Your task to perform on an android device: Look up the book "The Girl on the Train". Image 0: 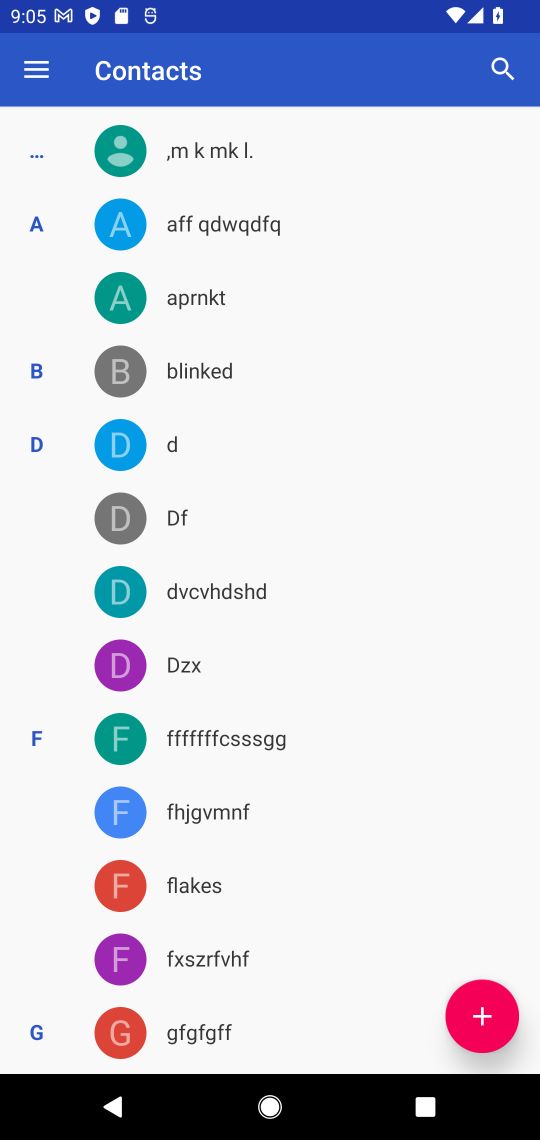
Step 0: press home button
Your task to perform on an android device: Look up the book "The Girl on the Train". Image 1: 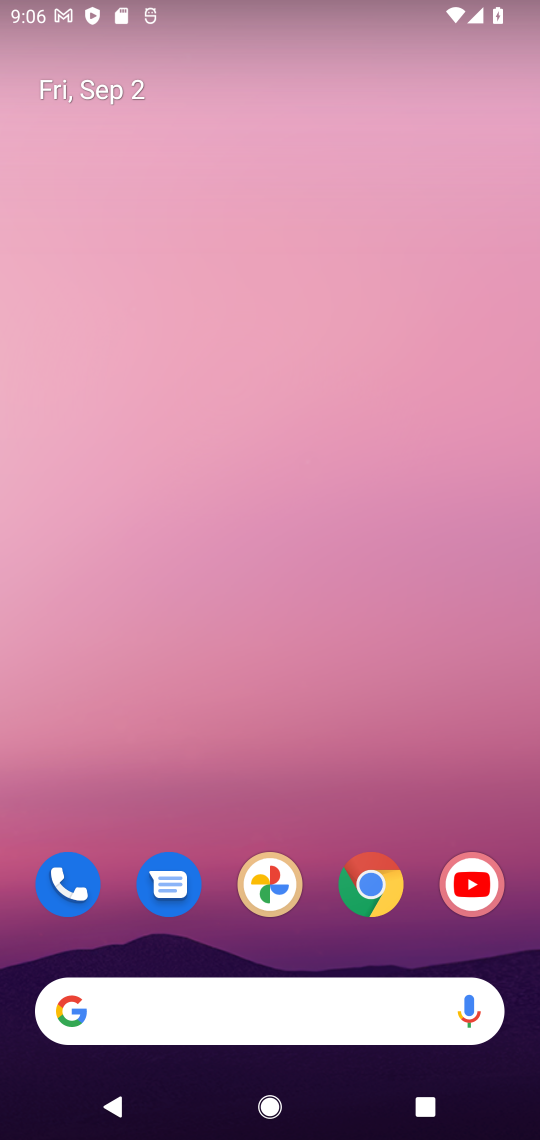
Step 1: click (375, 876)
Your task to perform on an android device: Look up the book "The Girl on the Train". Image 2: 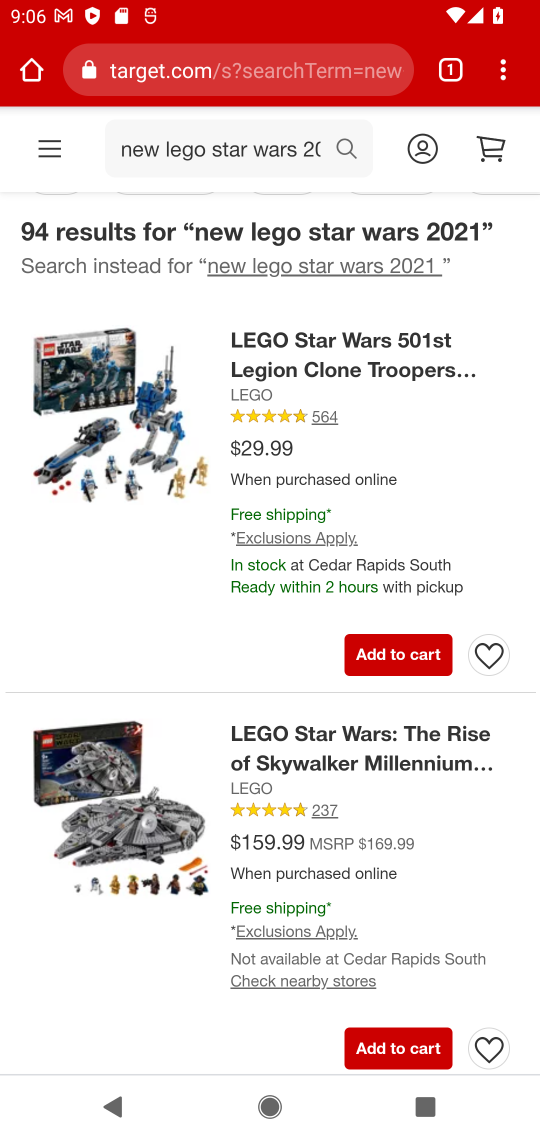
Step 2: click (264, 72)
Your task to perform on an android device: Look up the book "The Girl on the Train". Image 3: 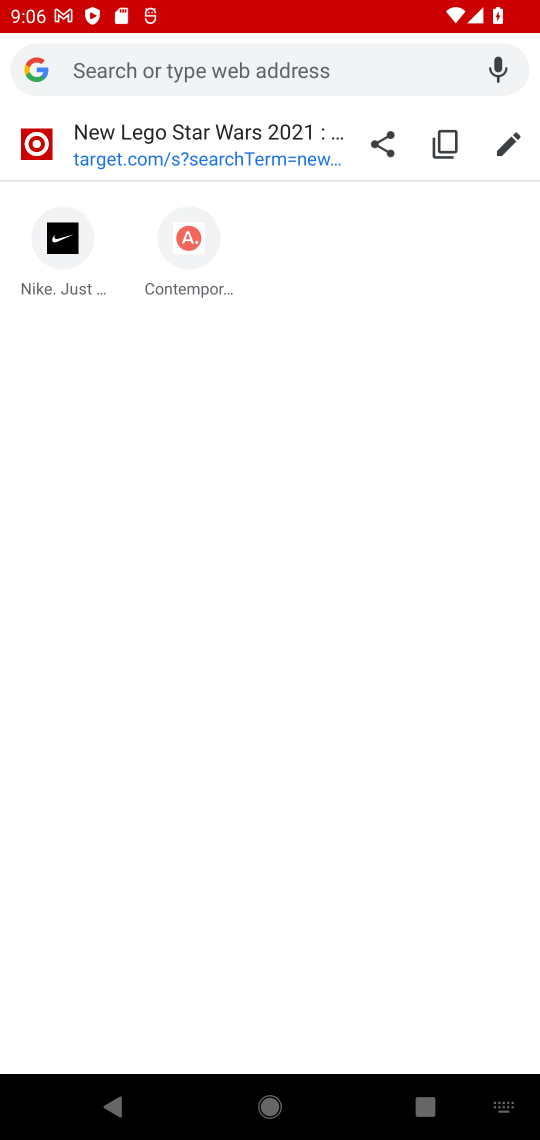
Step 3: type "The Girl on the Train book"
Your task to perform on an android device: Look up the book "The Girl on the Train". Image 4: 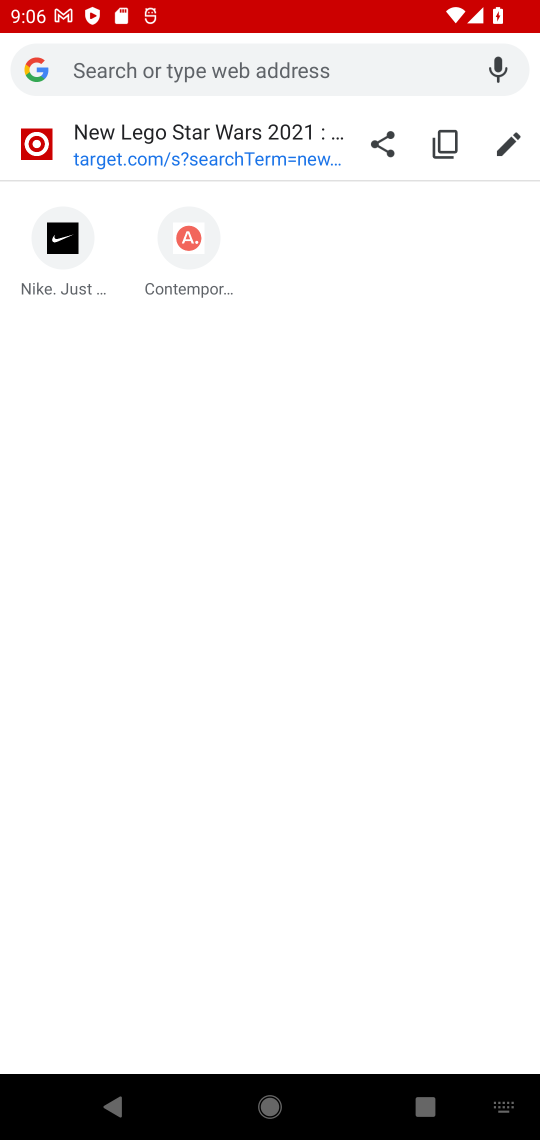
Step 4: click (198, 76)
Your task to perform on an android device: Look up the book "The Girl on the Train". Image 5: 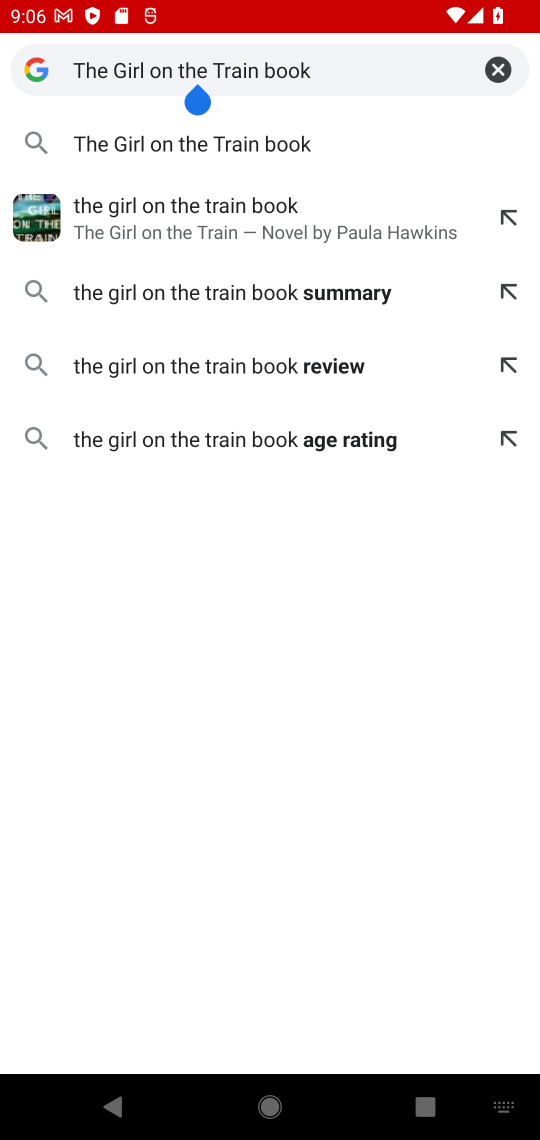
Step 5: click (180, 210)
Your task to perform on an android device: Look up the book "The Girl on the Train". Image 6: 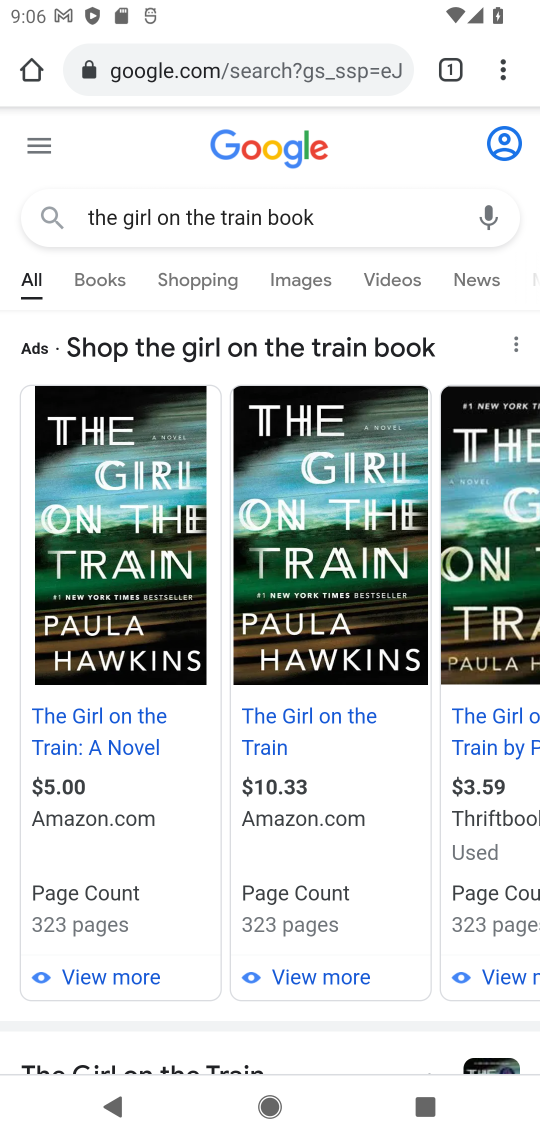
Step 6: task complete